Your task to perform on an android device: Open the phone app and click the voicemail tab. Image 0: 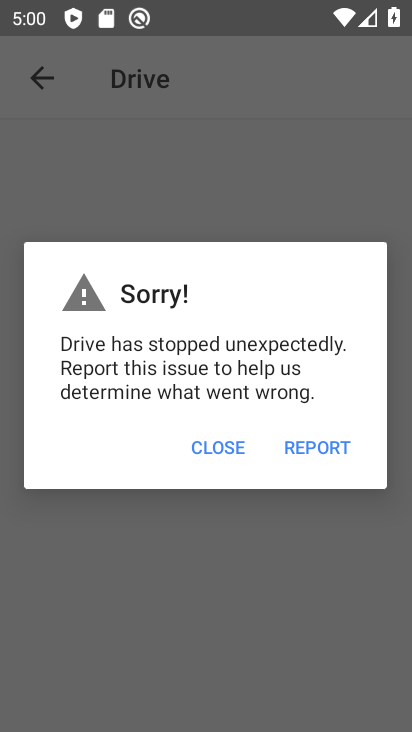
Step 0: press home button
Your task to perform on an android device: Open the phone app and click the voicemail tab. Image 1: 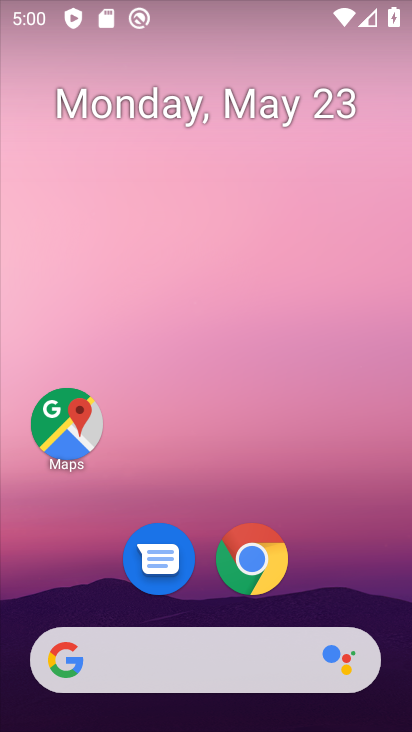
Step 1: drag from (298, 609) to (294, 0)
Your task to perform on an android device: Open the phone app and click the voicemail tab. Image 2: 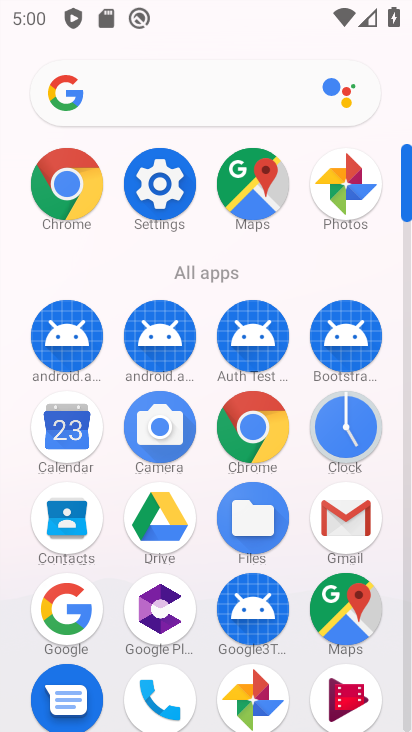
Step 2: click (163, 704)
Your task to perform on an android device: Open the phone app and click the voicemail tab. Image 3: 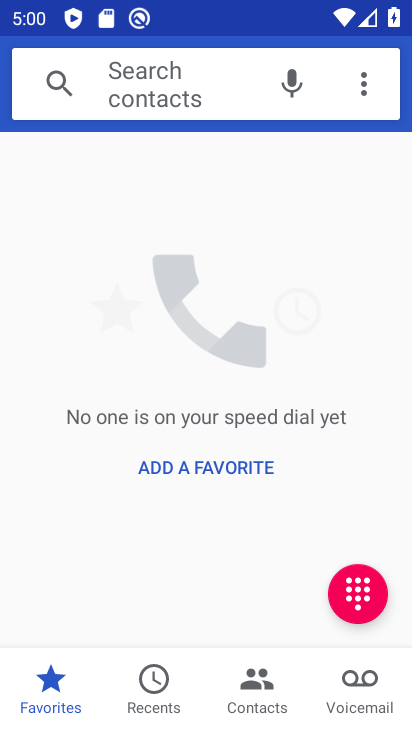
Step 3: click (362, 679)
Your task to perform on an android device: Open the phone app and click the voicemail tab. Image 4: 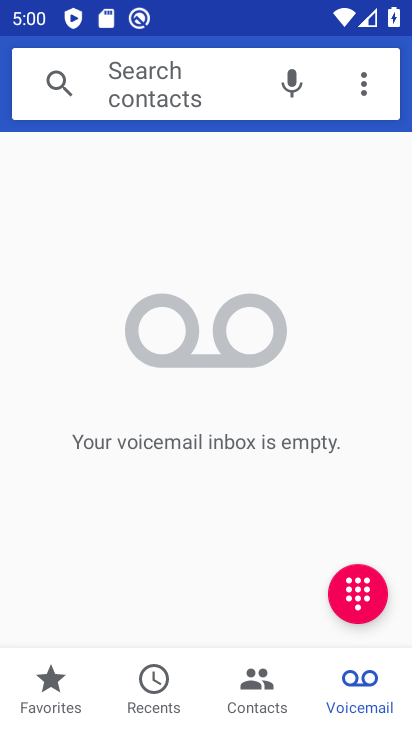
Step 4: task complete